Your task to perform on an android device: open a bookmark in the chrome app Image 0: 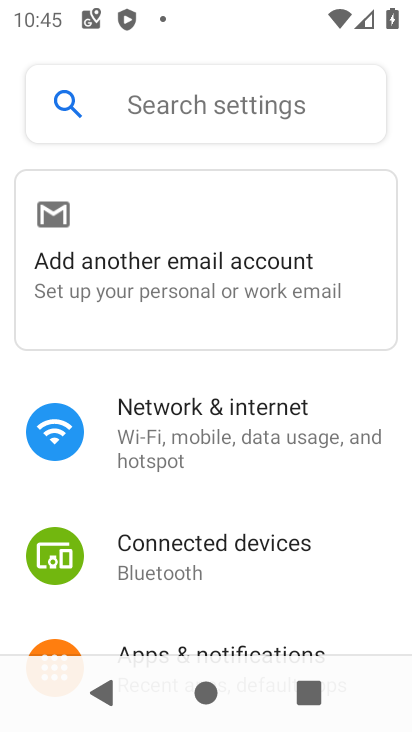
Step 0: press home button
Your task to perform on an android device: open a bookmark in the chrome app Image 1: 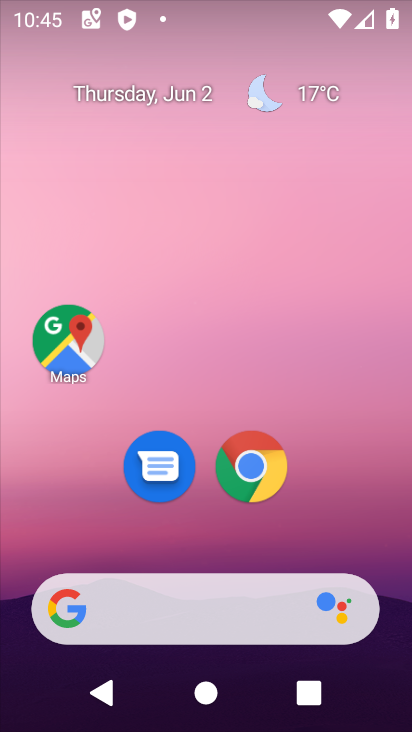
Step 1: click (242, 472)
Your task to perform on an android device: open a bookmark in the chrome app Image 2: 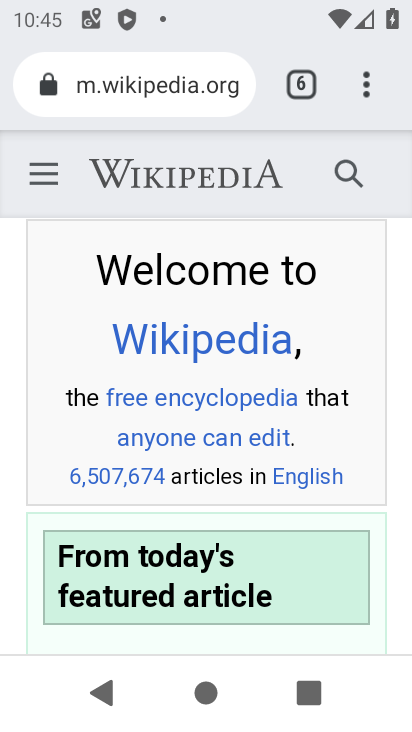
Step 2: click (355, 83)
Your task to perform on an android device: open a bookmark in the chrome app Image 3: 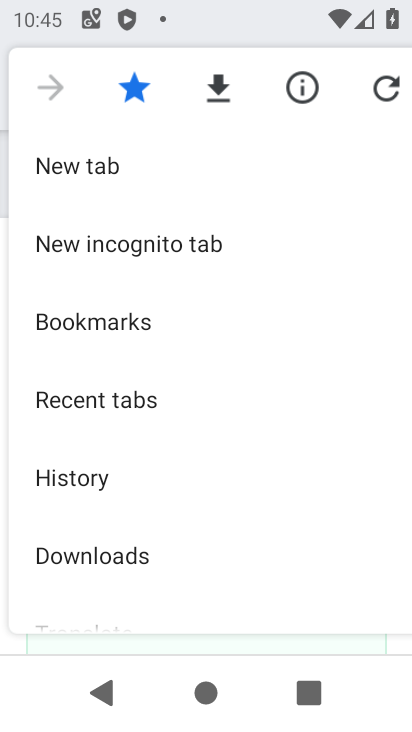
Step 3: click (128, 335)
Your task to perform on an android device: open a bookmark in the chrome app Image 4: 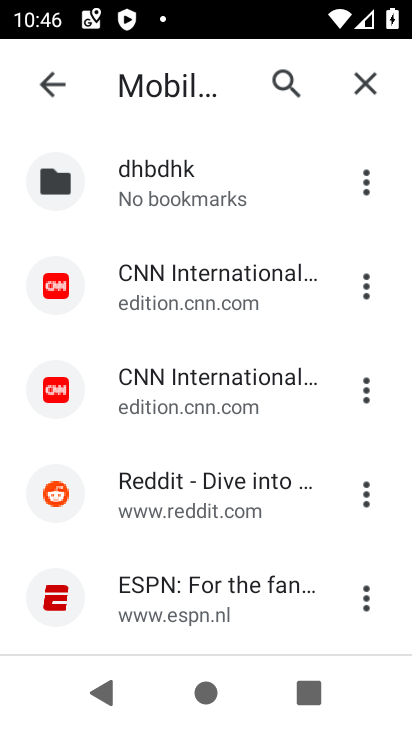
Step 4: task complete